Your task to perform on an android device: Search for seafood restaurants on Google Maps Image 0: 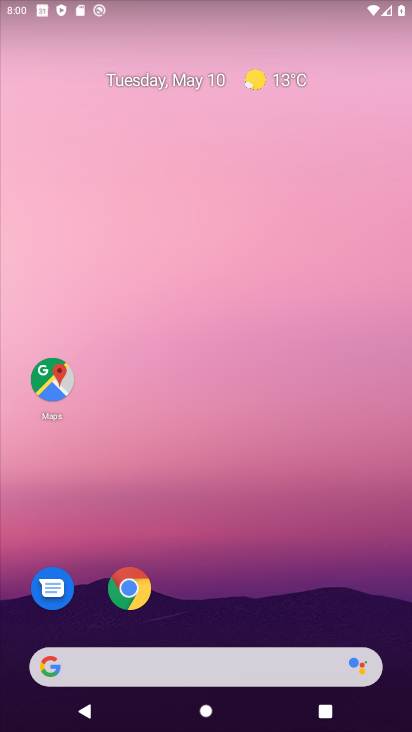
Step 0: click (39, 392)
Your task to perform on an android device: Search for seafood restaurants on Google Maps Image 1: 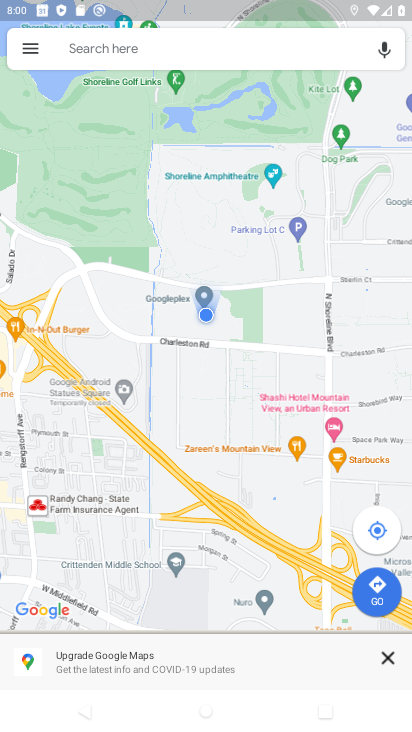
Step 1: click (205, 38)
Your task to perform on an android device: Search for seafood restaurants on Google Maps Image 2: 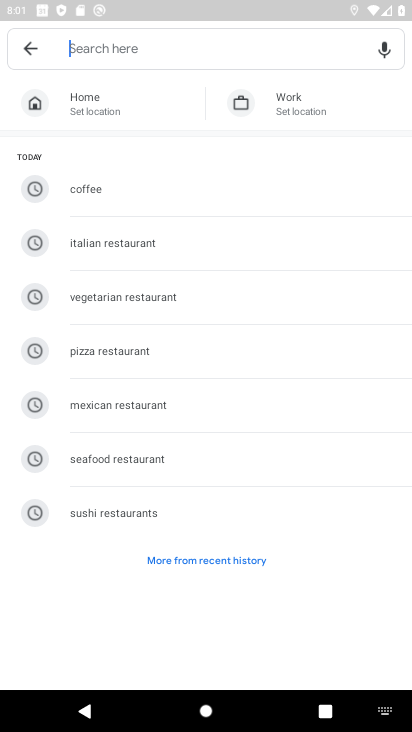
Step 2: click (205, 38)
Your task to perform on an android device: Search for seafood restaurants on Google Maps Image 3: 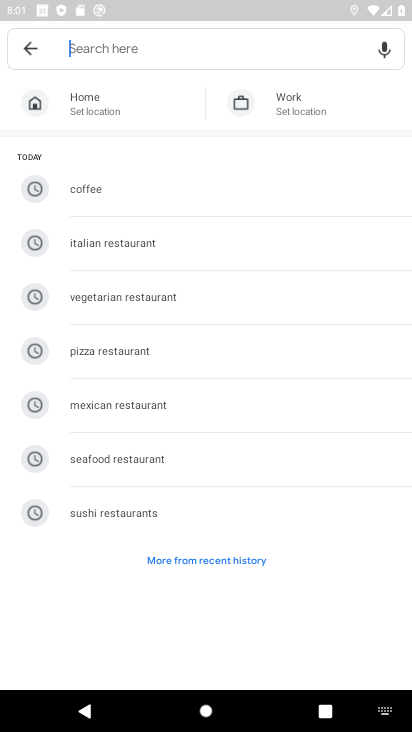
Step 3: click (111, 455)
Your task to perform on an android device: Search for seafood restaurants on Google Maps Image 4: 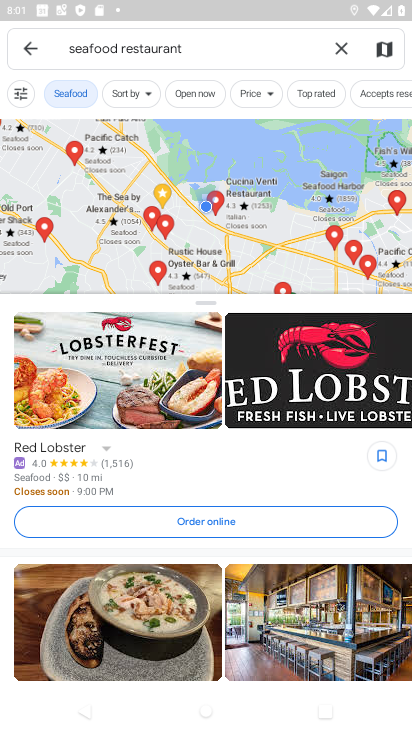
Step 4: task complete